Your task to perform on an android device: move an email to a new category in the gmail app Image 0: 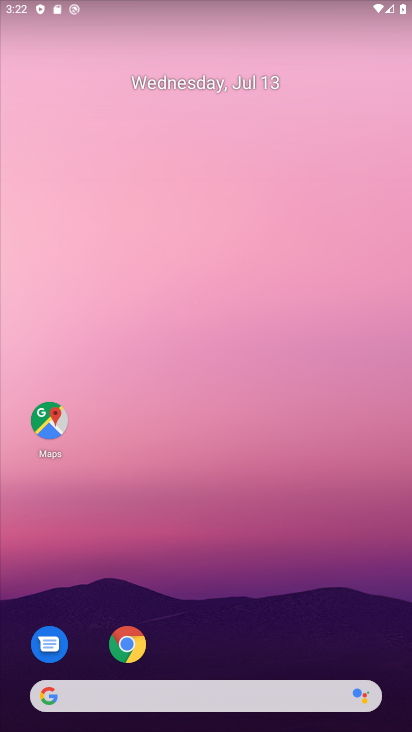
Step 0: drag from (208, 475) to (208, 332)
Your task to perform on an android device: move an email to a new category in the gmail app Image 1: 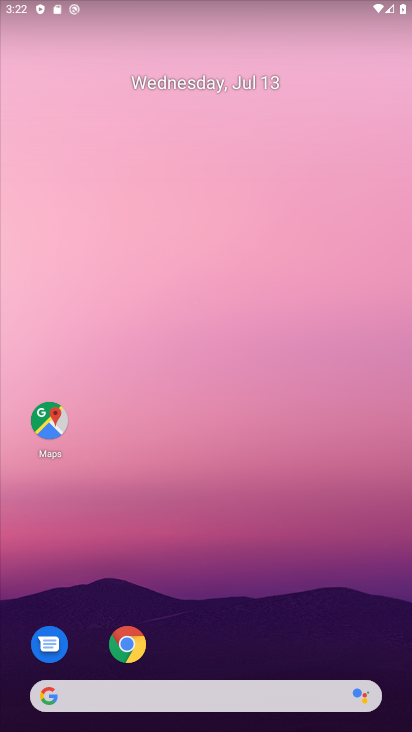
Step 1: drag from (207, 640) to (191, 202)
Your task to perform on an android device: move an email to a new category in the gmail app Image 2: 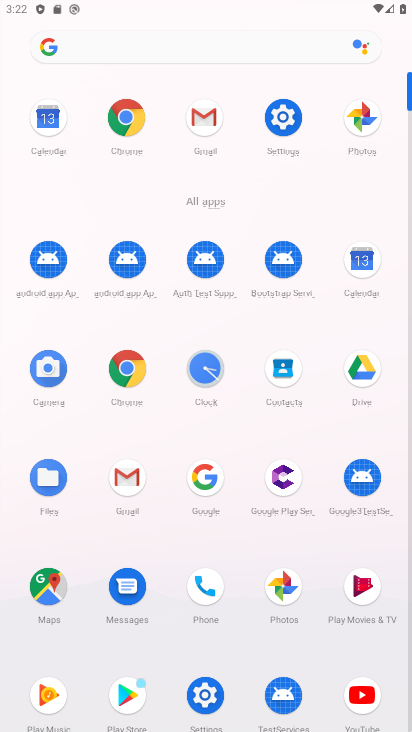
Step 2: click (217, 137)
Your task to perform on an android device: move an email to a new category in the gmail app Image 3: 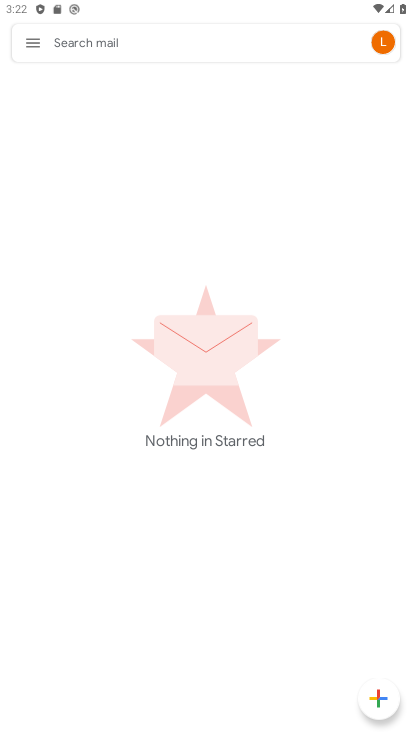
Step 3: click (40, 51)
Your task to perform on an android device: move an email to a new category in the gmail app Image 4: 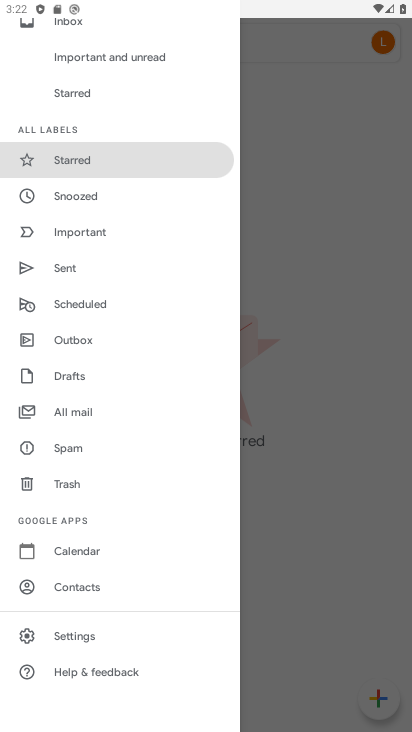
Step 4: click (96, 405)
Your task to perform on an android device: move an email to a new category in the gmail app Image 5: 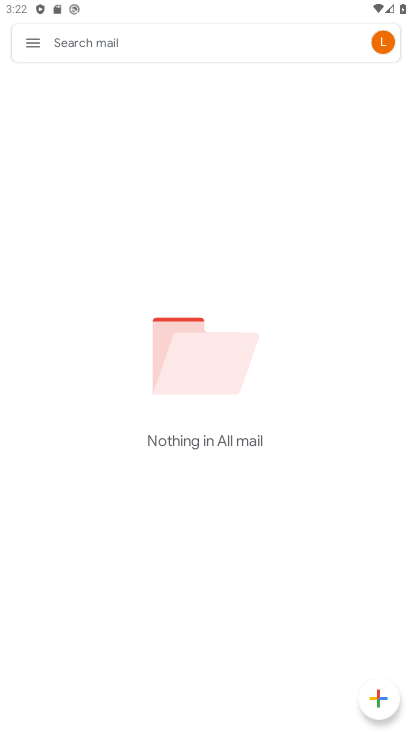
Step 5: task complete